Your task to perform on an android device: Go to Google Image 0: 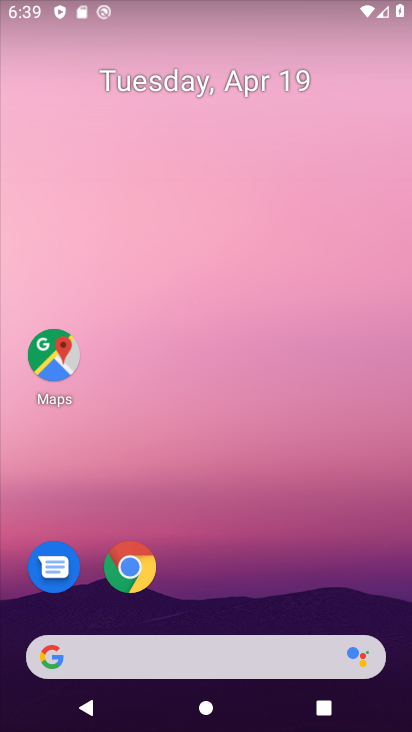
Step 0: drag from (223, 564) to (242, 25)
Your task to perform on an android device: Go to Google Image 1: 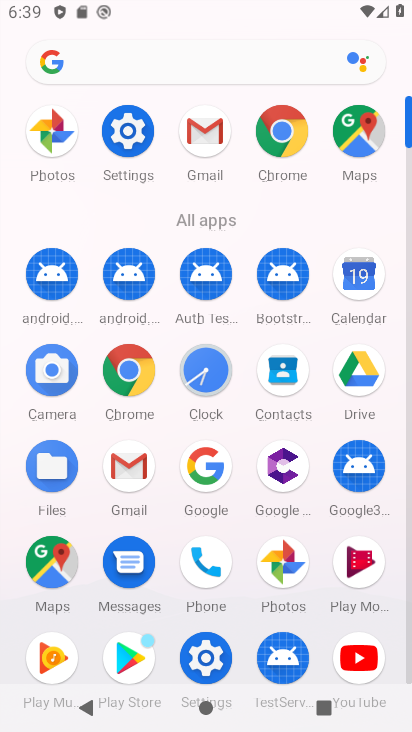
Step 1: click (209, 469)
Your task to perform on an android device: Go to Google Image 2: 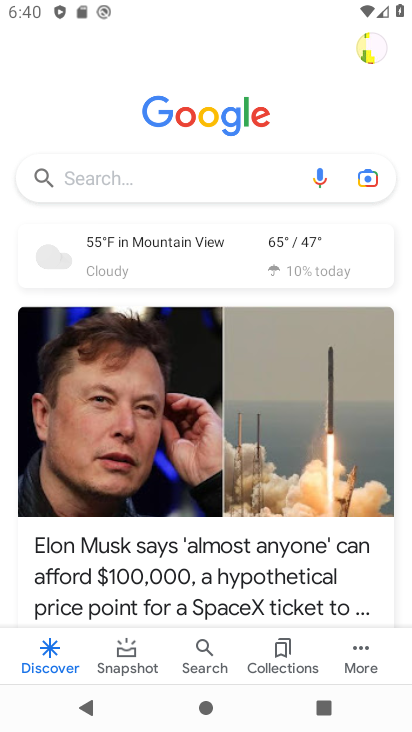
Step 2: task complete